Your task to perform on an android device: Install the Twitter app Image 0: 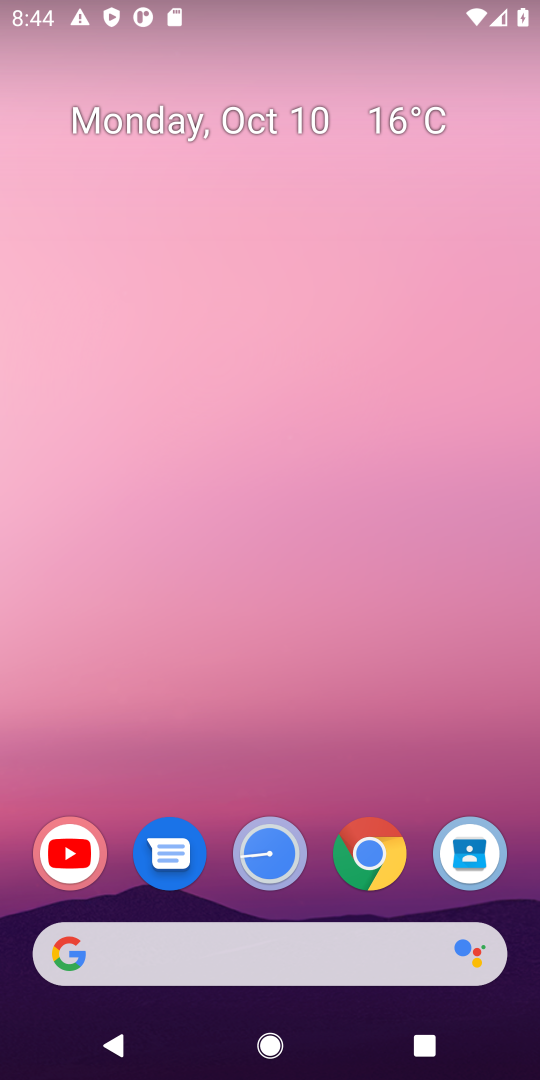
Step 0: drag from (332, 915) to (308, 121)
Your task to perform on an android device: Install the Twitter app Image 1: 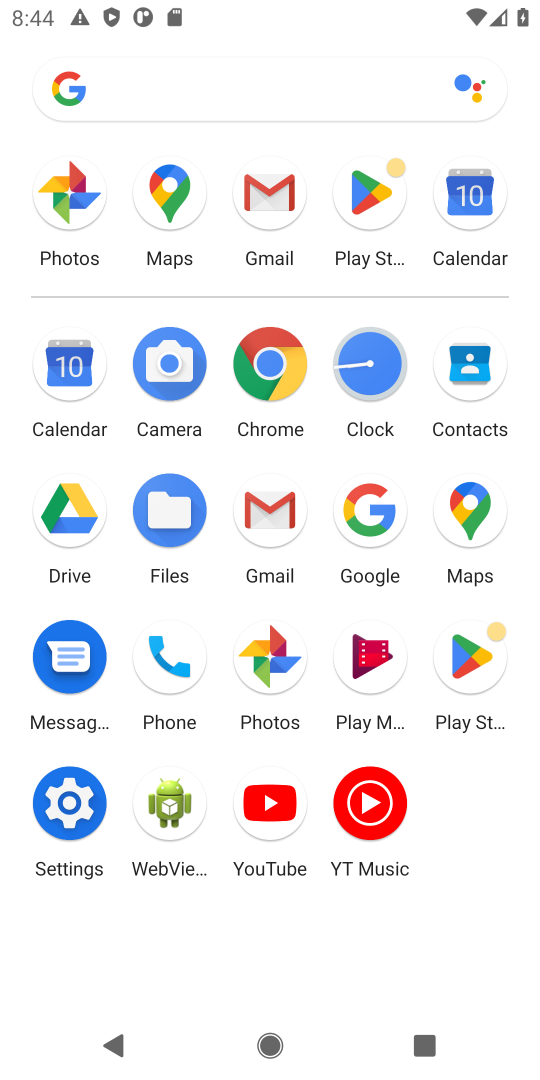
Step 1: click (369, 506)
Your task to perform on an android device: Install the Twitter app Image 2: 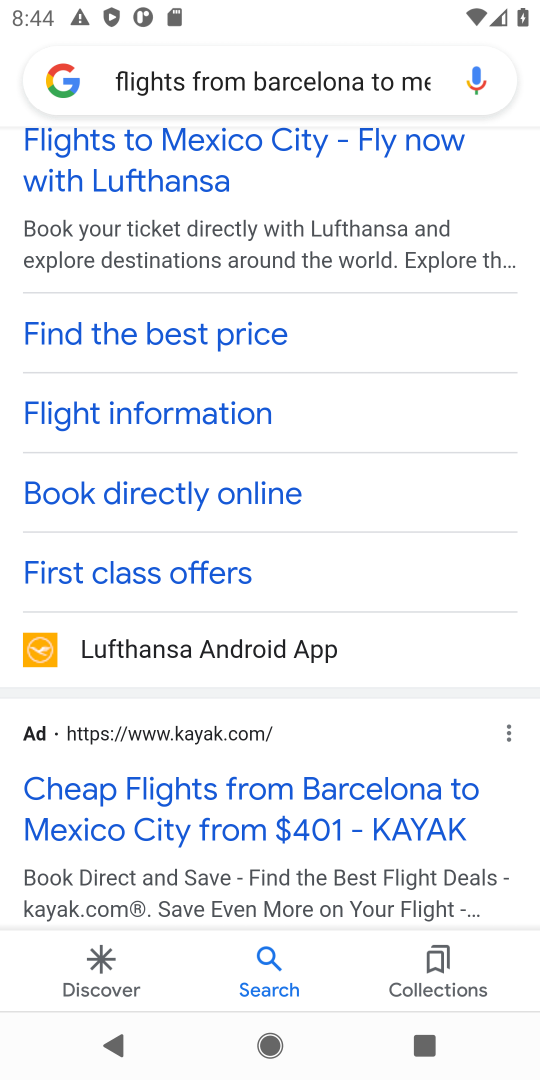
Step 2: drag from (278, 205) to (326, 730)
Your task to perform on an android device: Install the Twitter app Image 3: 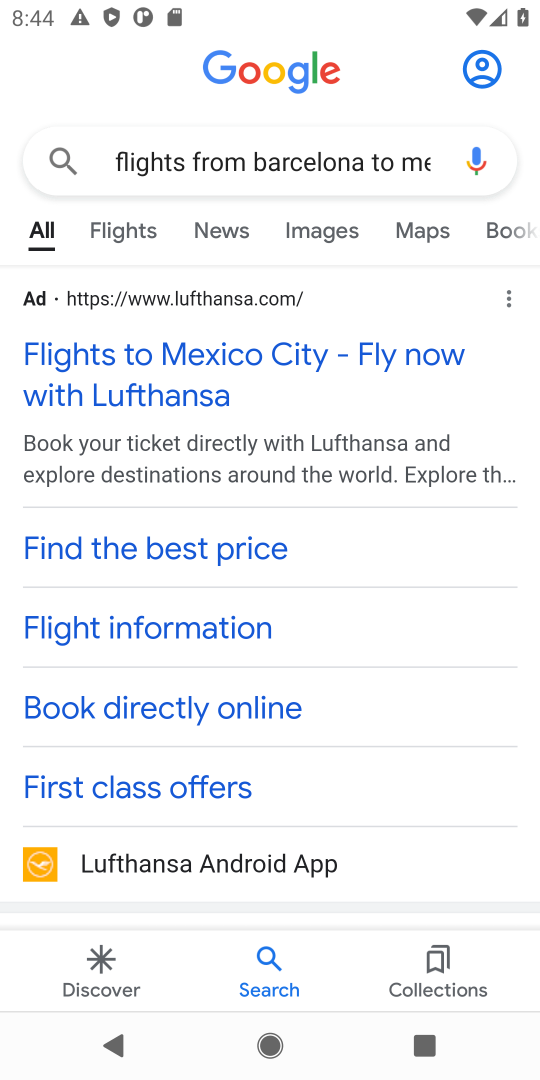
Step 3: click (279, 163)
Your task to perform on an android device: Install the Twitter app Image 4: 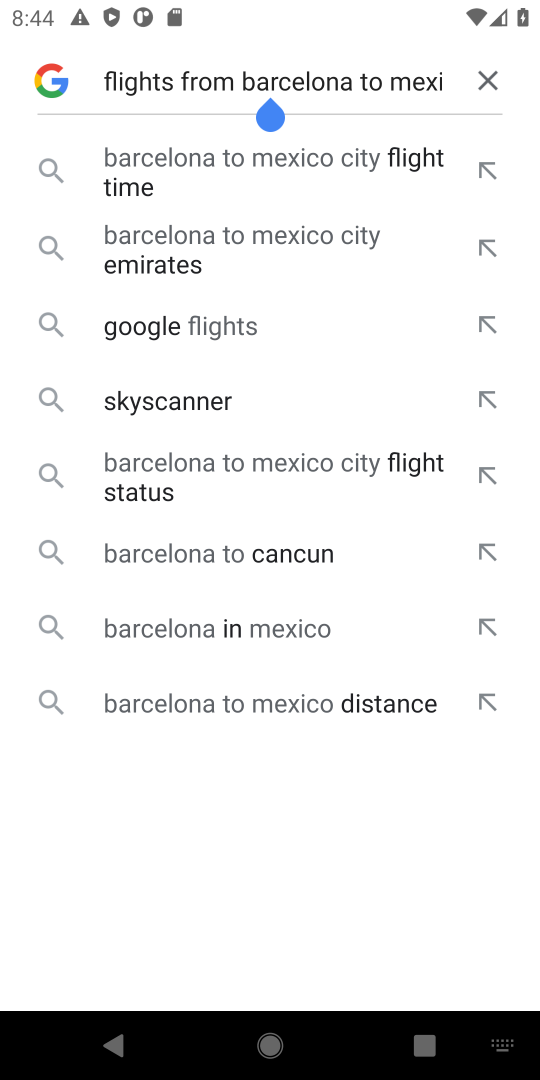
Step 4: click (481, 83)
Your task to perform on an android device: Install the Twitter app Image 5: 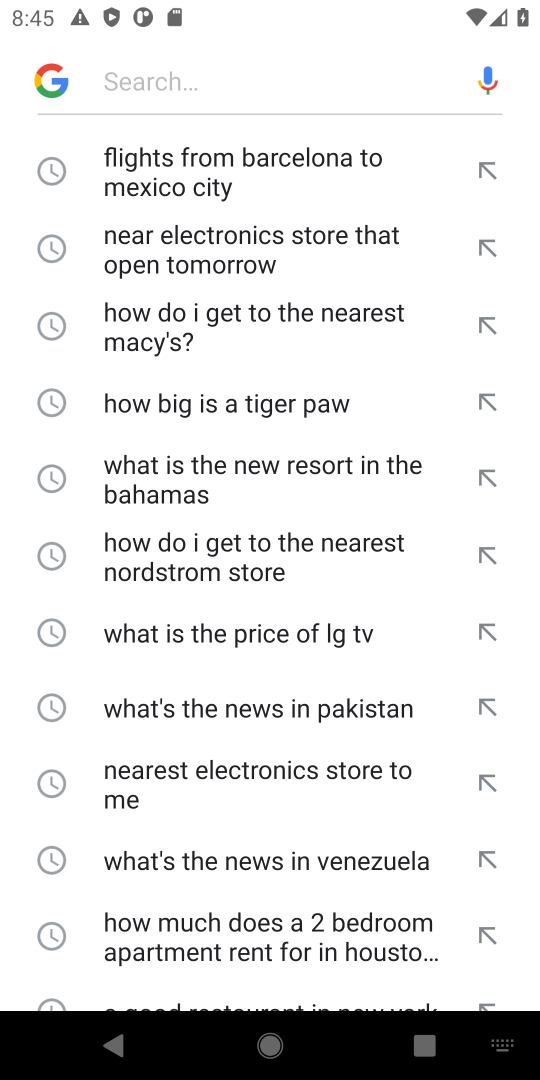
Step 5: press home button
Your task to perform on an android device: Install the Twitter app Image 6: 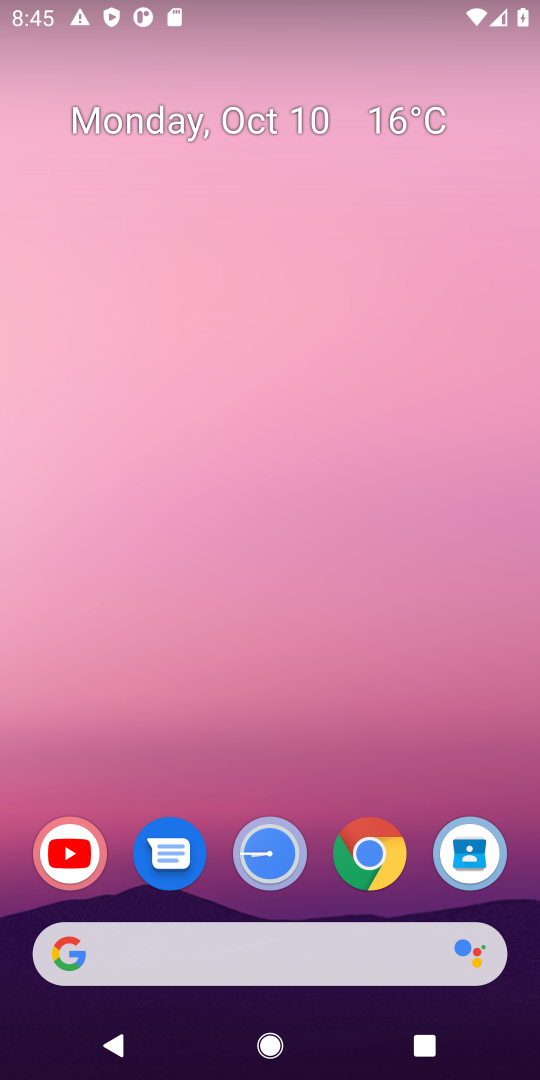
Step 6: drag from (311, 813) to (198, 15)
Your task to perform on an android device: Install the Twitter app Image 7: 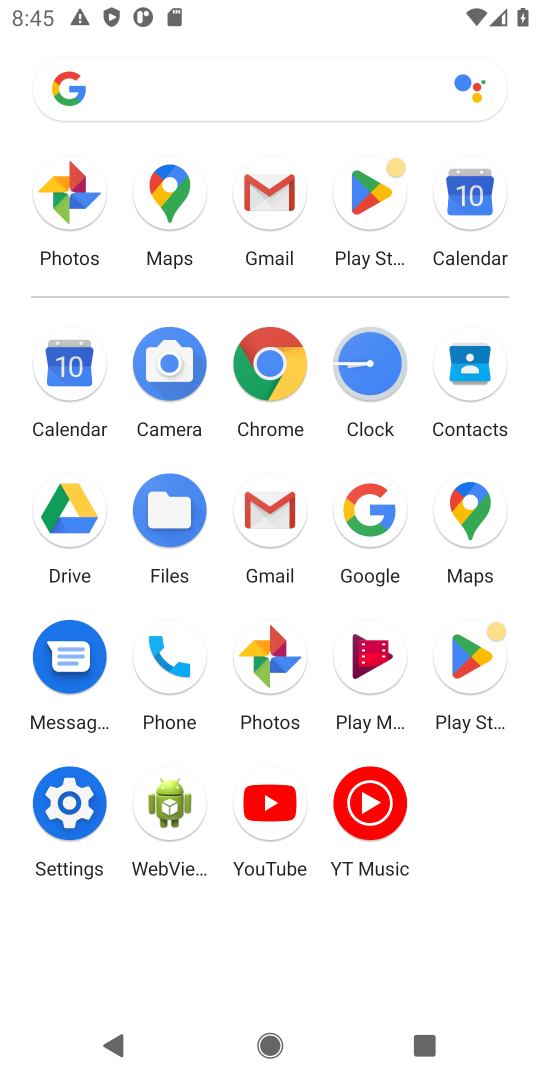
Step 7: click (368, 190)
Your task to perform on an android device: Install the Twitter app Image 8: 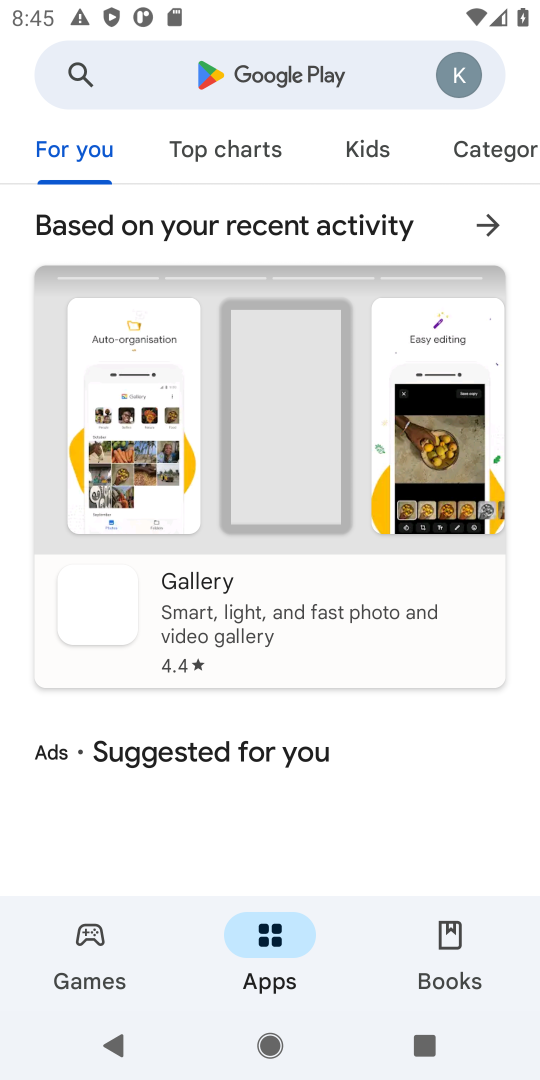
Step 8: click (80, 69)
Your task to perform on an android device: Install the Twitter app Image 9: 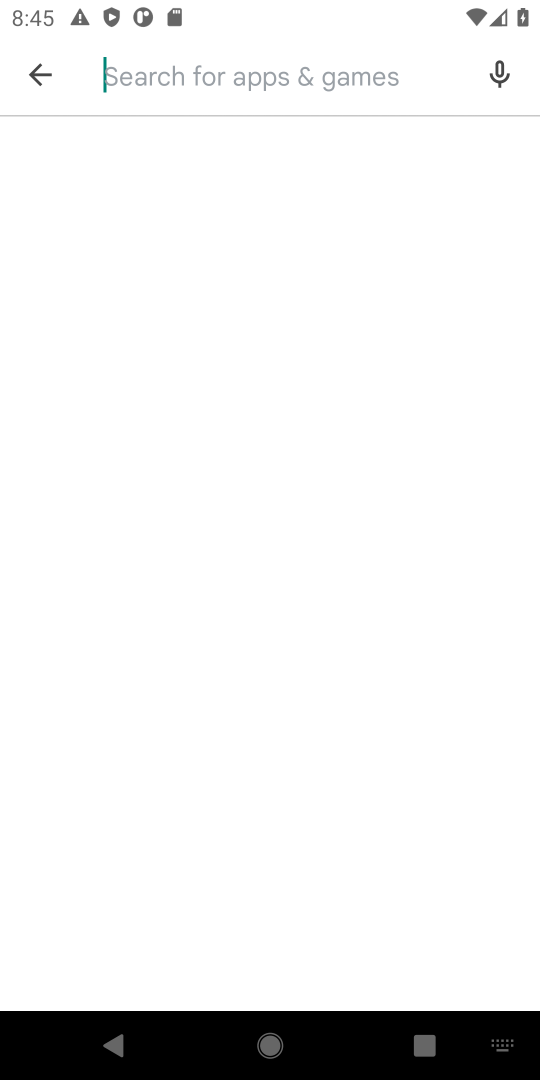
Step 9: type "Twitter"
Your task to perform on an android device: Install the Twitter app Image 10: 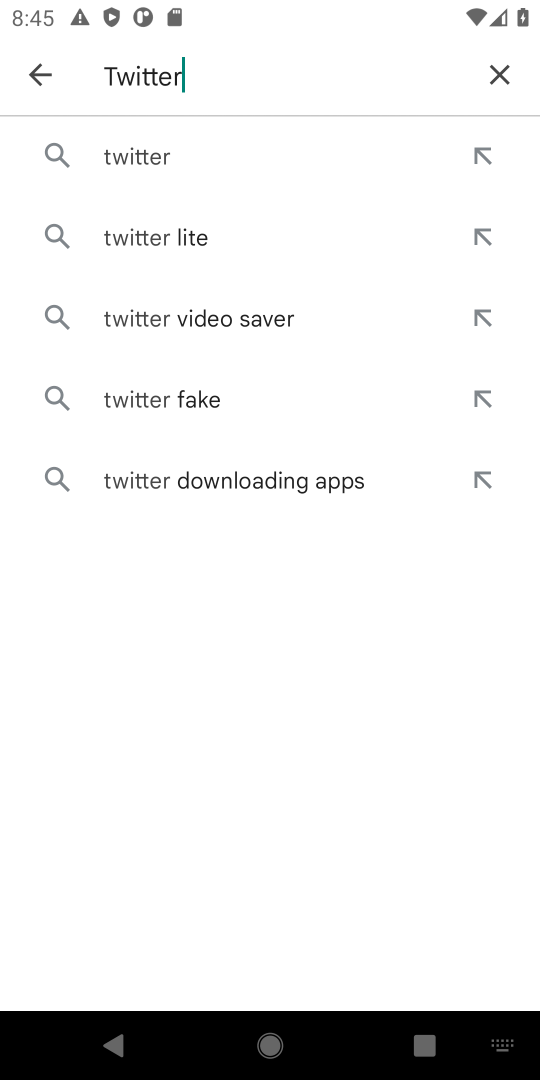
Step 10: click (138, 155)
Your task to perform on an android device: Install the Twitter app Image 11: 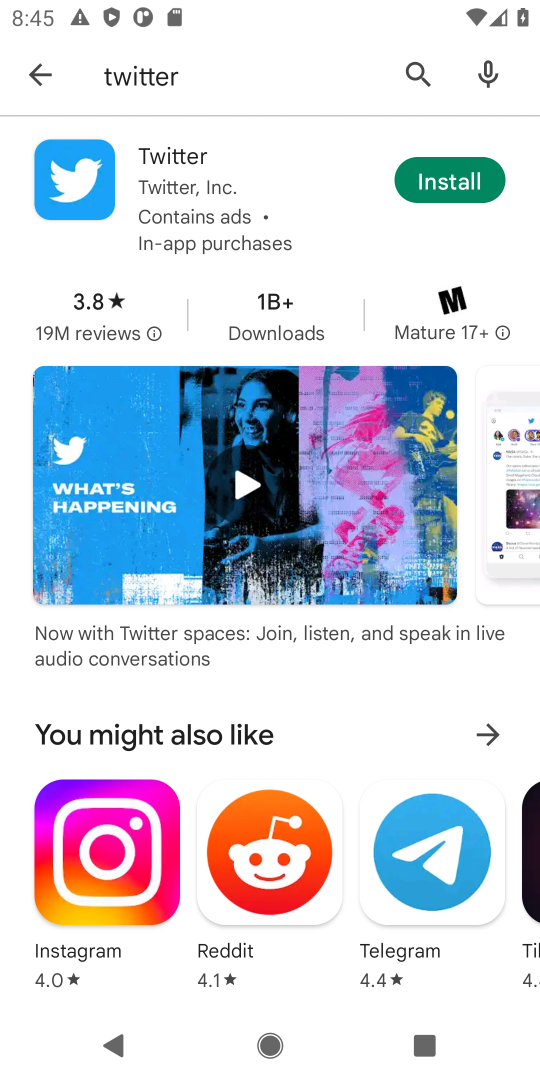
Step 11: click (454, 178)
Your task to perform on an android device: Install the Twitter app Image 12: 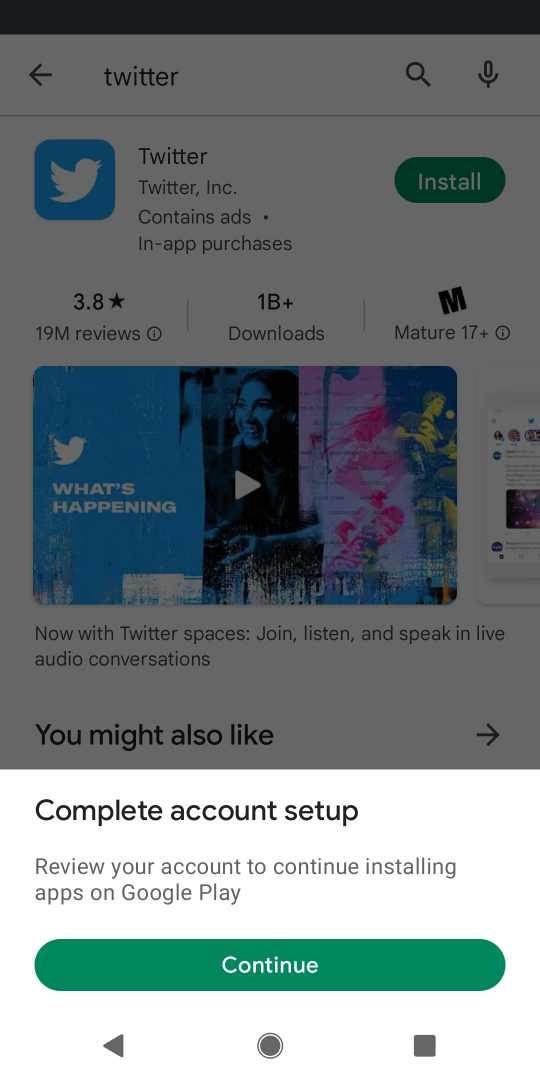
Step 12: click (323, 968)
Your task to perform on an android device: Install the Twitter app Image 13: 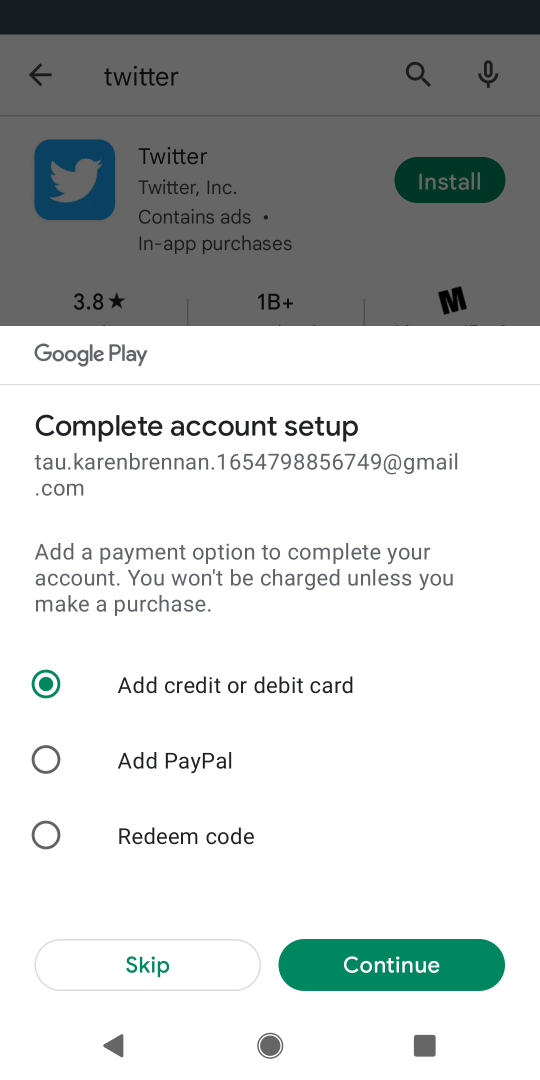
Step 13: click (138, 954)
Your task to perform on an android device: Install the Twitter app Image 14: 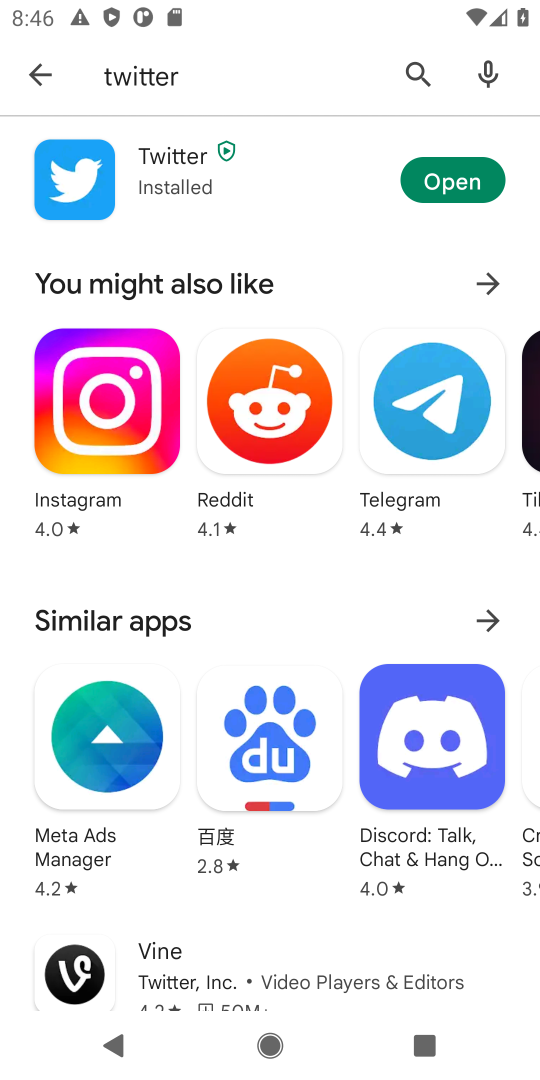
Step 14: task complete